Your task to perform on an android device: Check the news Image 0: 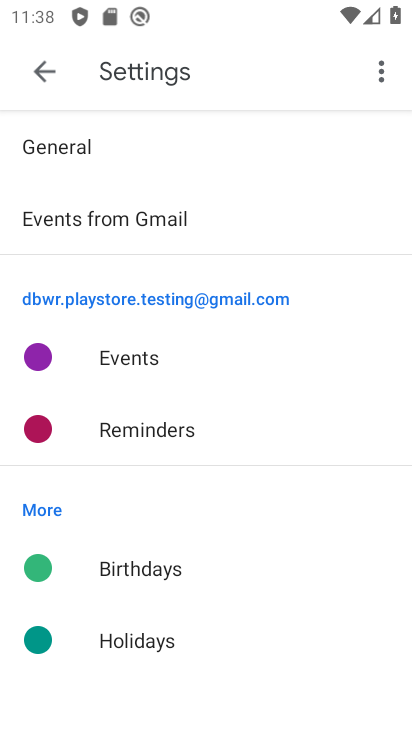
Step 0: press home button
Your task to perform on an android device: Check the news Image 1: 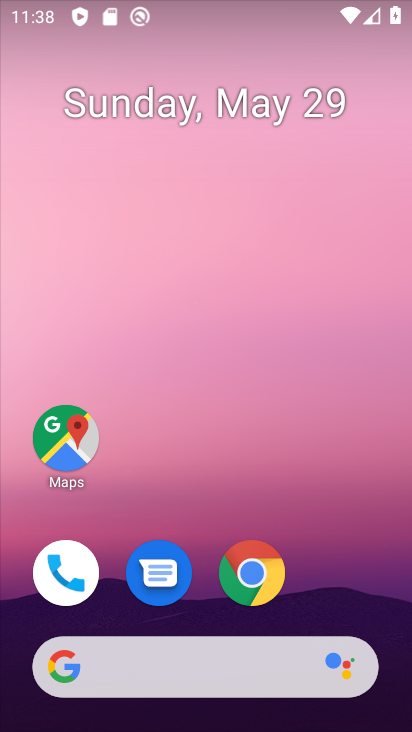
Step 1: click (129, 674)
Your task to perform on an android device: Check the news Image 2: 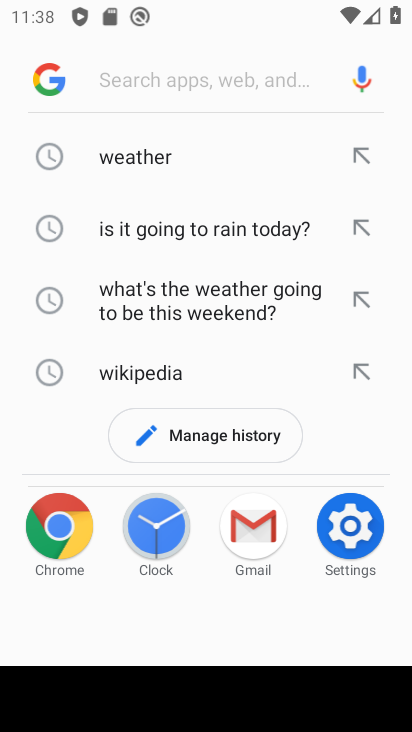
Step 2: type " news"
Your task to perform on an android device: Check the news Image 3: 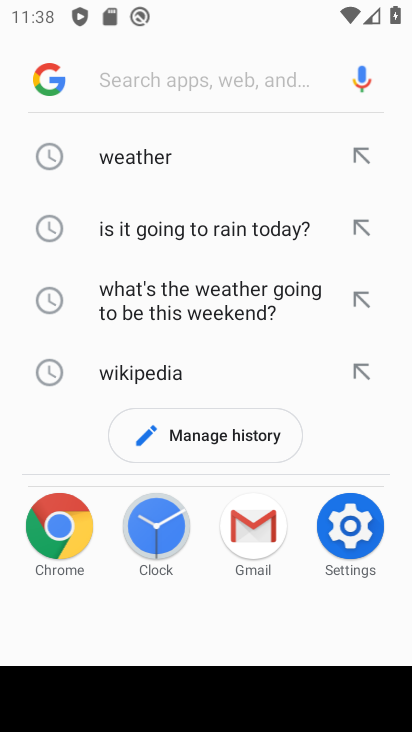
Step 3: click (196, 96)
Your task to perform on an android device: Check the news Image 4: 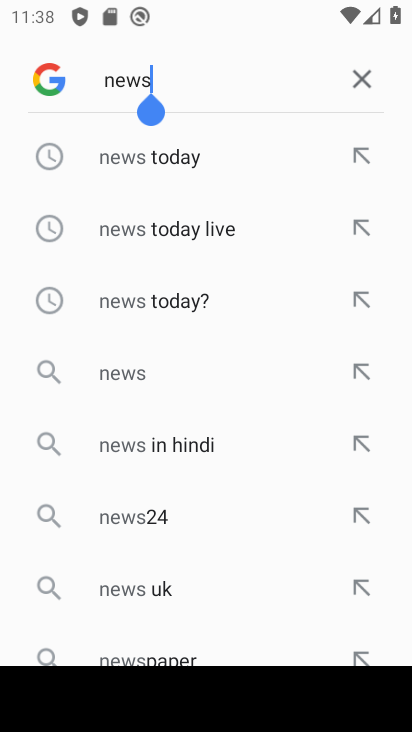
Step 4: click (121, 376)
Your task to perform on an android device: Check the news Image 5: 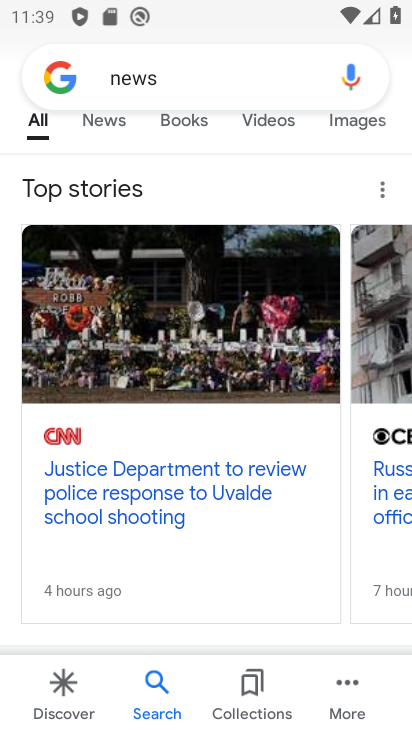
Step 5: task complete